Your task to perform on an android device: open a bookmark in the chrome app Image 0: 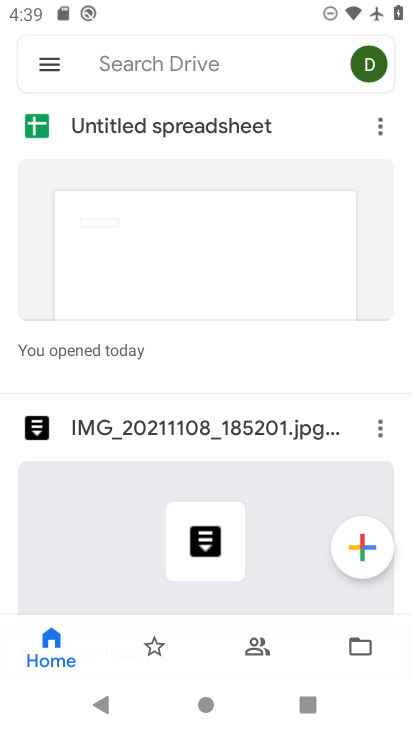
Step 0: press home button
Your task to perform on an android device: open a bookmark in the chrome app Image 1: 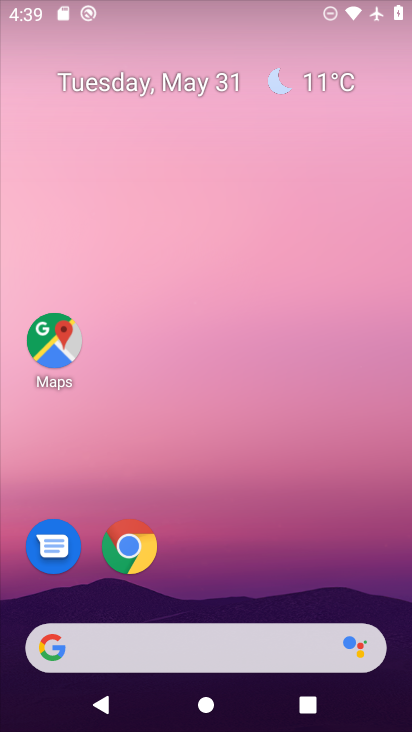
Step 1: drag from (207, 532) to (182, 65)
Your task to perform on an android device: open a bookmark in the chrome app Image 2: 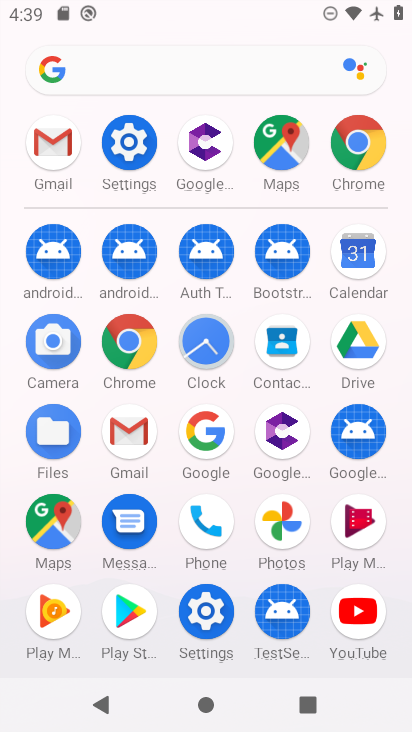
Step 2: click (119, 360)
Your task to perform on an android device: open a bookmark in the chrome app Image 3: 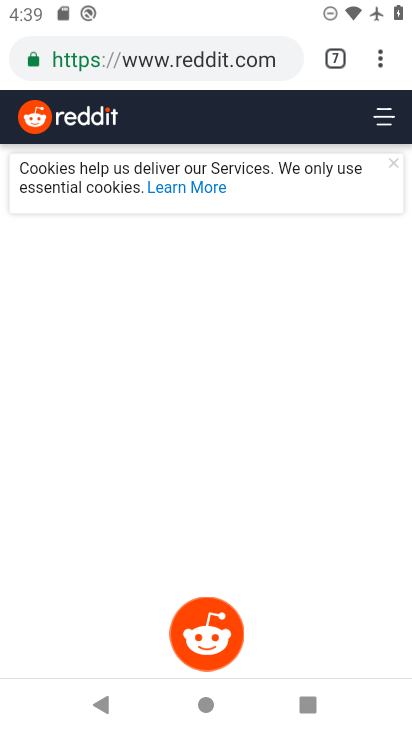
Step 3: click (389, 55)
Your task to perform on an android device: open a bookmark in the chrome app Image 4: 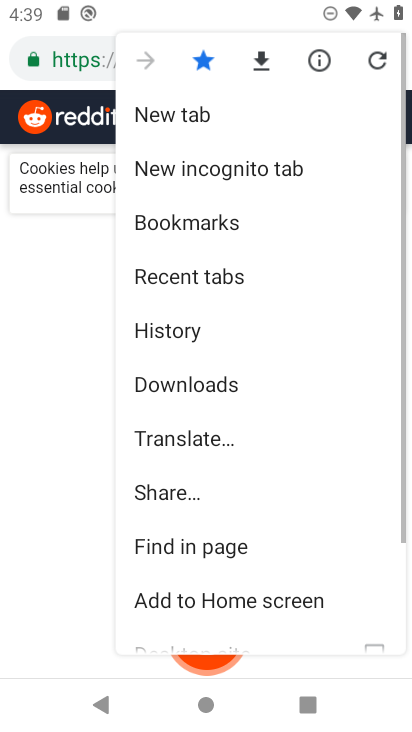
Step 4: click (237, 226)
Your task to perform on an android device: open a bookmark in the chrome app Image 5: 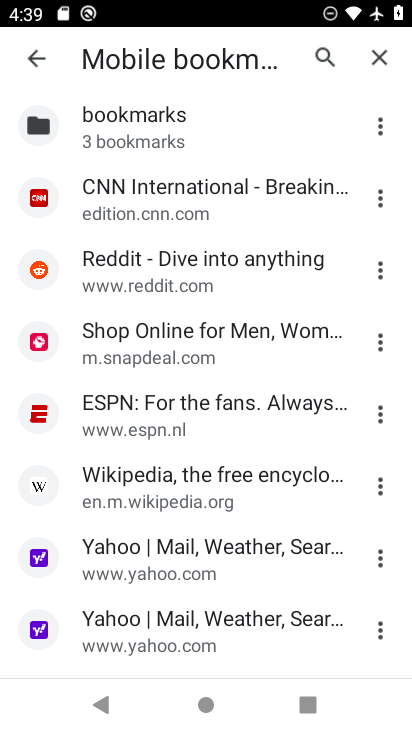
Step 5: click (143, 200)
Your task to perform on an android device: open a bookmark in the chrome app Image 6: 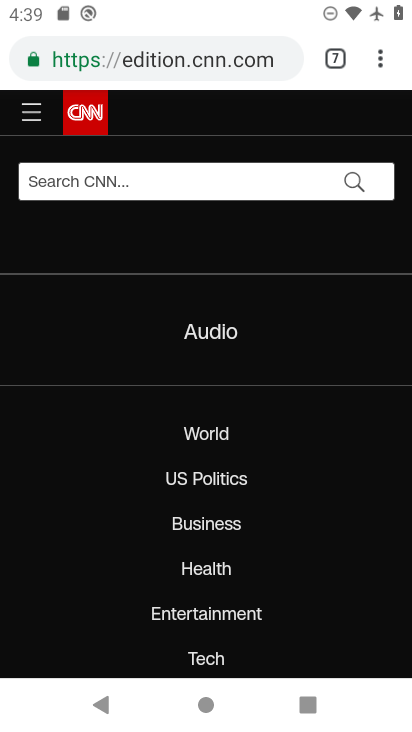
Step 6: task complete